Your task to perform on an android device: Open Google Image 0: 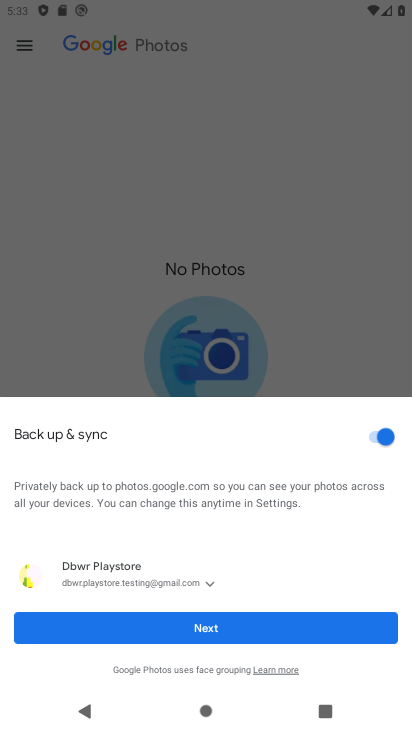
Step 0: press back button
Your task to perform on an android device: Open Google Image 1: 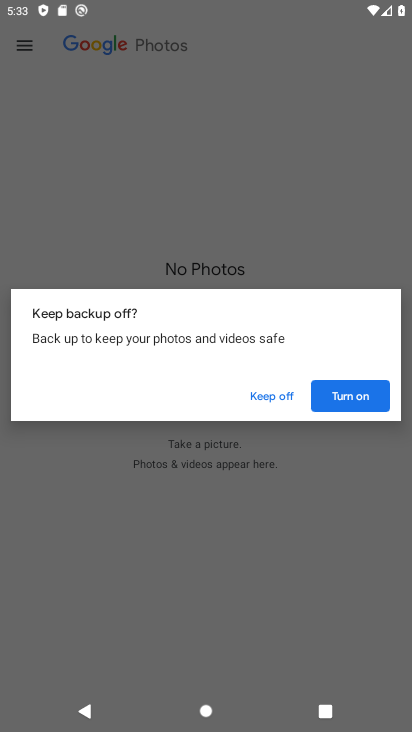
Step 1: press home button
Your task to perform on an android device: Open Google Image 2: 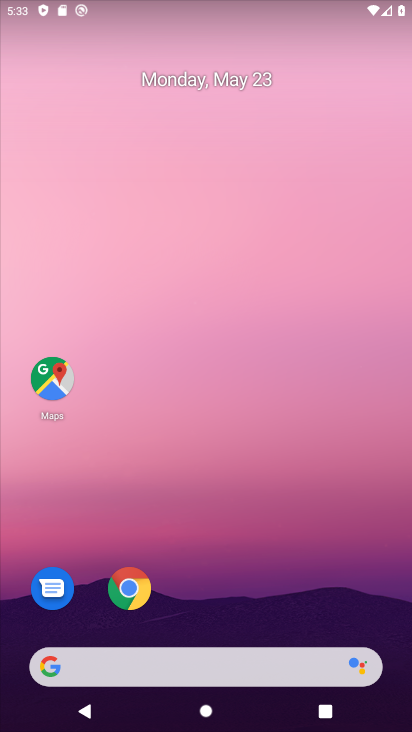
Step 2: drag from (295, 516) to (290, 23)
Your task to perform on an android device: Open Google Image 3: 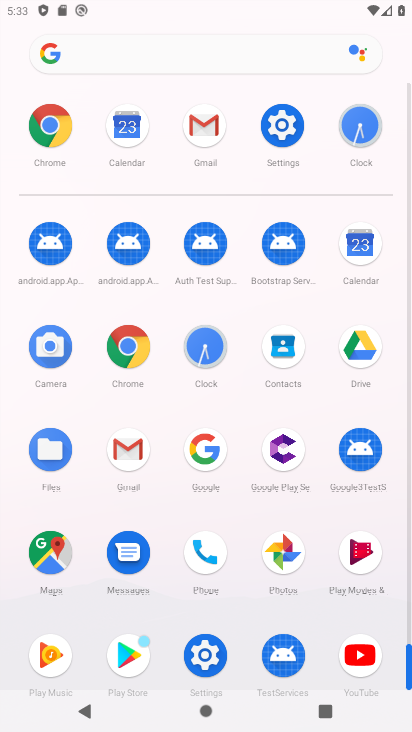
Step 3: click (129, 341)
Your task to perform on an android device: Open Google Image 4: 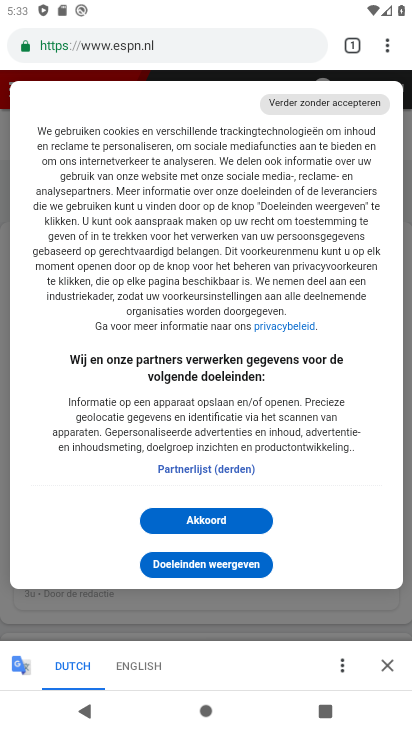
Step 4: click (171, 48)
Your task to perform on an android device: Open Google Image 5: 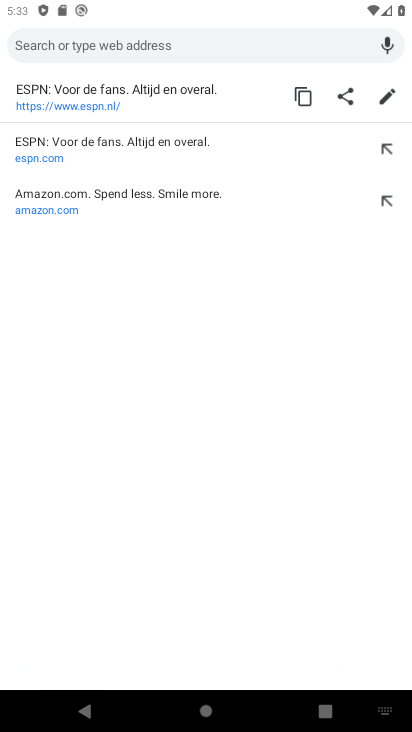
Step 5: type "Google"
Your task to perform on an android device: Open Google Image 6: 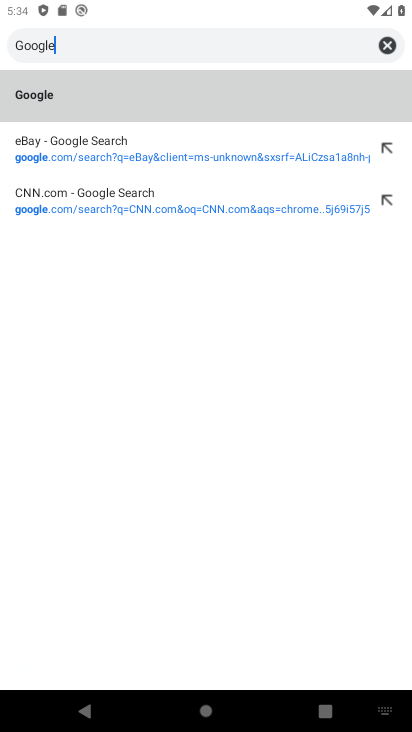
Step 6: click (99, 102)
Your task to perform on an android device: Open Google Image 7: 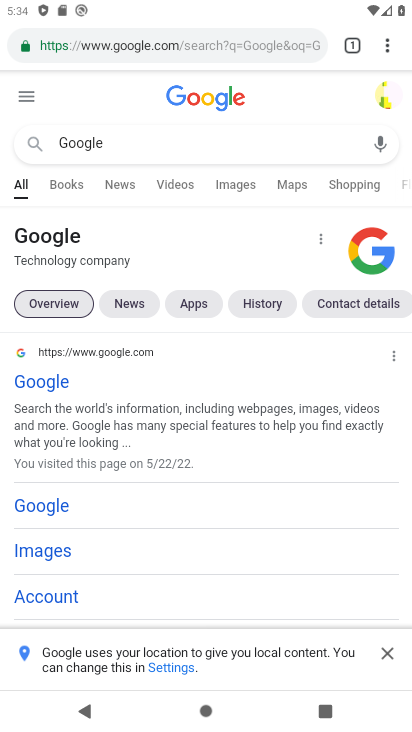
Step 7: click (55, 380)
Your task to perform on an android device: Open Google Image 8: 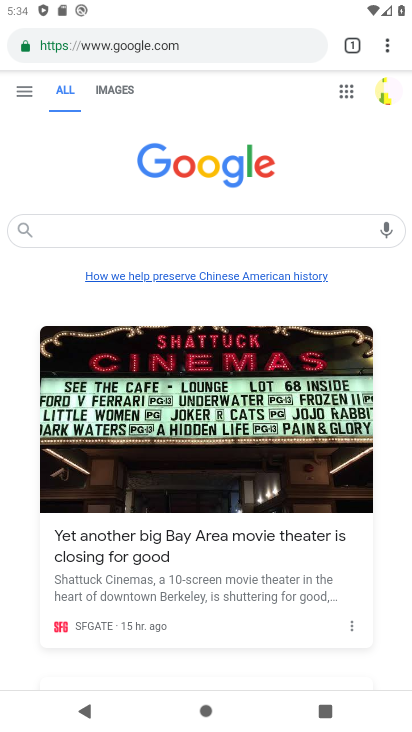
Step 8: click (202, 161)
Your task to perform on an android device: Open Google Image 9: 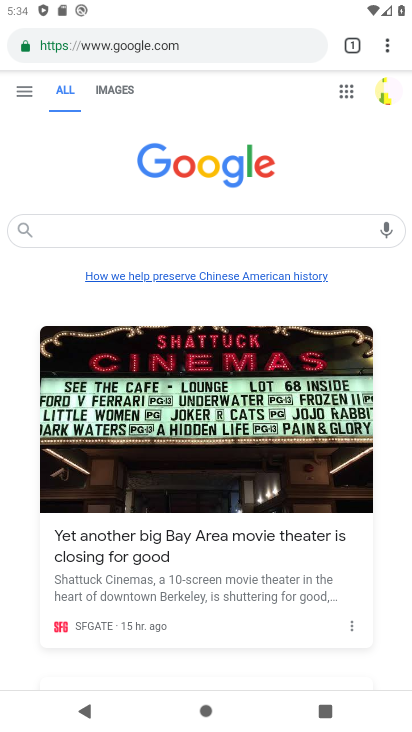
Step 9: task complete